Your task to perform on an android device: install app "Google Sheets" Image 0: 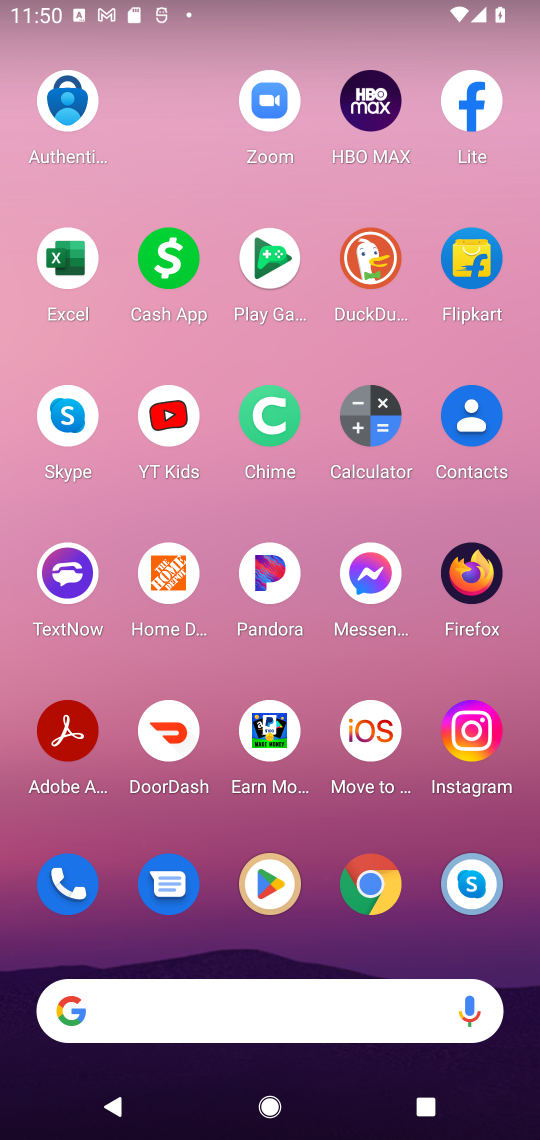
Step 0: press home button
Your task to perform on an android device: install app "Google Sheets" Image 1: 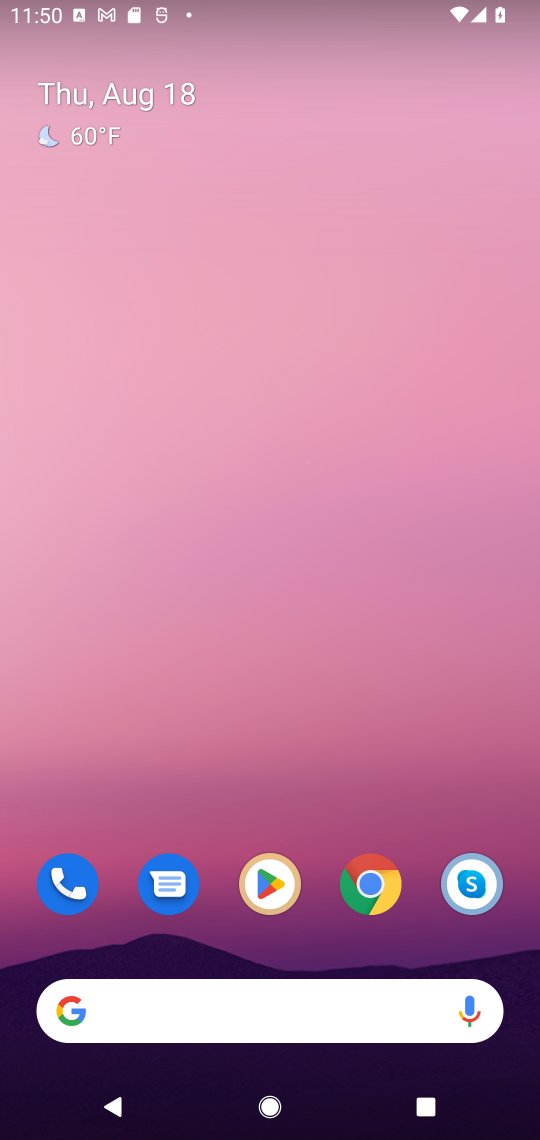
Step 1: drag from (199, 1001) to (157, 4)
Your task to perform on an android device: install app "Google Sheets" Image 2: 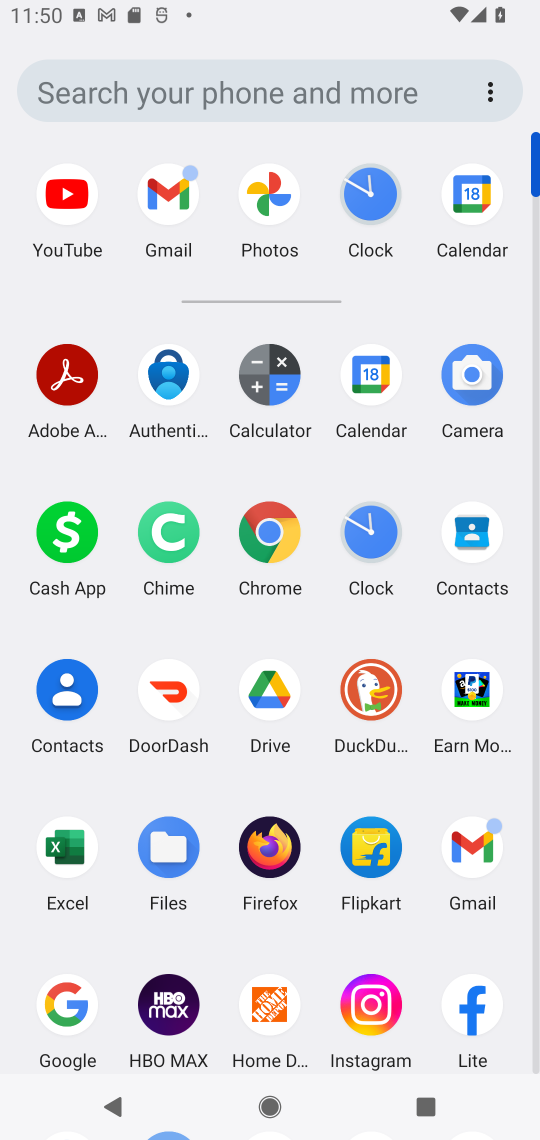
Step 2: drag from (311, 919) to (415, 305)
Your task to perform on an android device: install app "Google Sheets" Image 3: 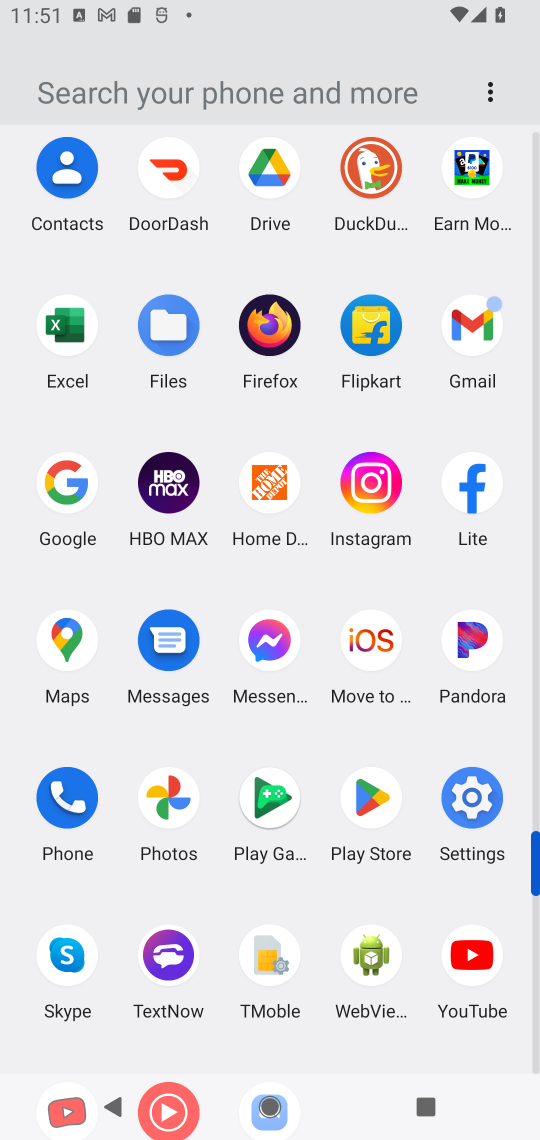
Step 3: click (373, 803)
Your task to perform on an android device: install app "Google Sheets" Image 4: 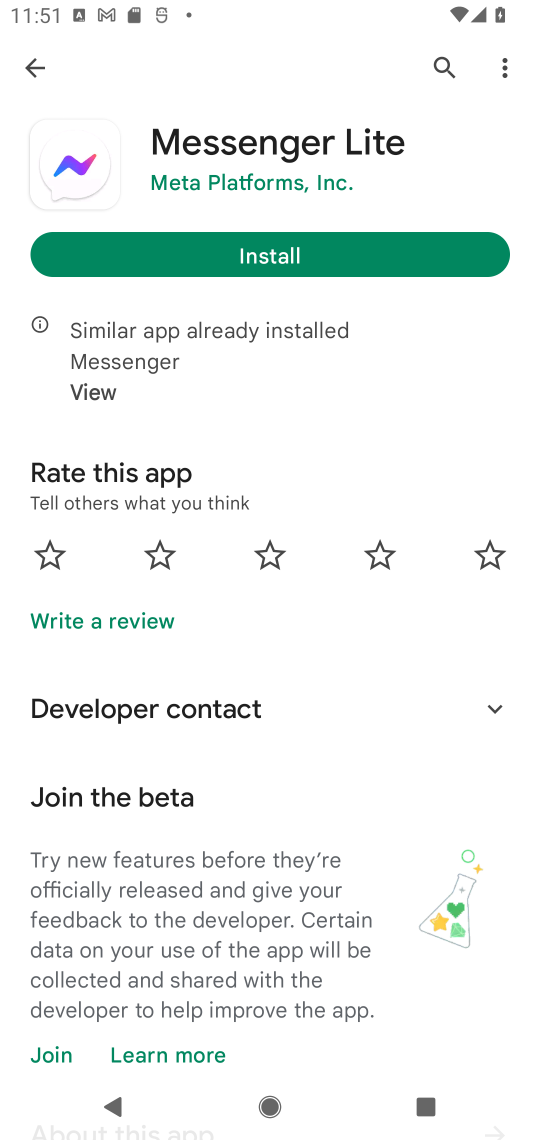
Step 4: press back button
Your task to perform on an android device: install app "Google Sheets" Image 5: 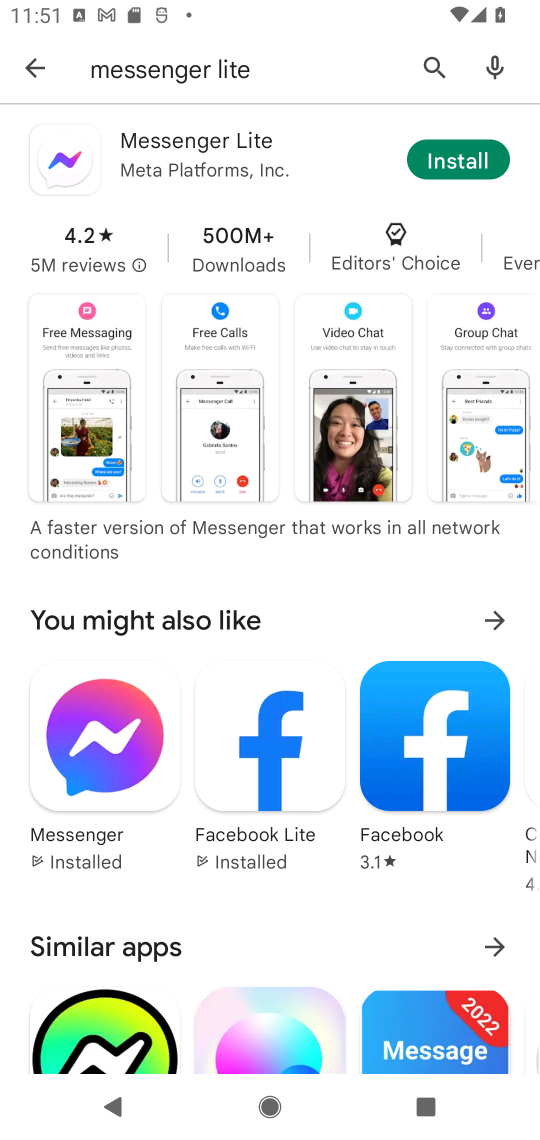
Step 5: press back button
Your task to perform on an android device: install app "Google Sheets" Image 6: 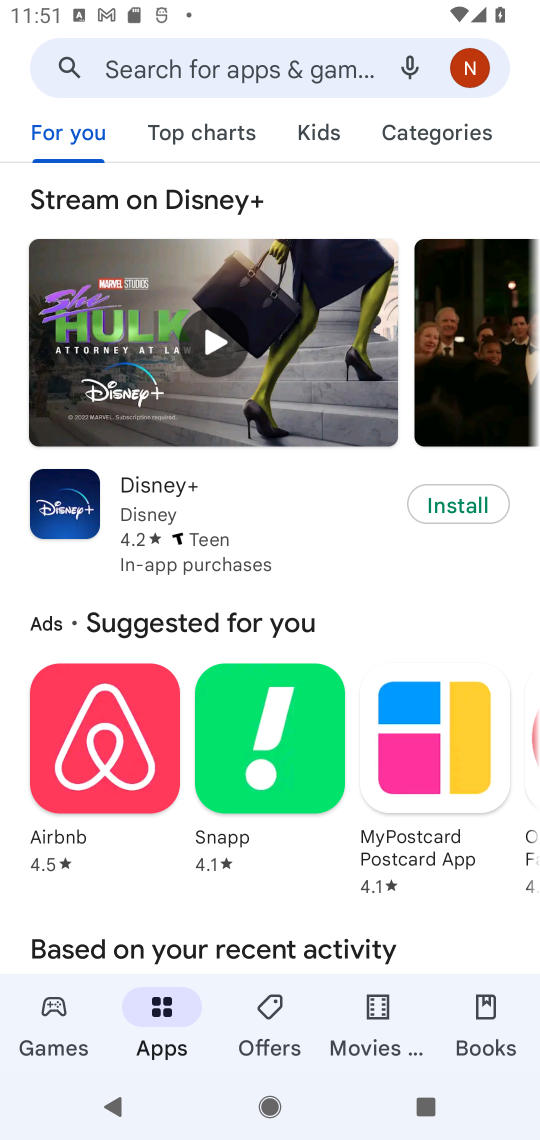
Step 6: click (214, 80)
Your task to perform on an android device: install app "Google Sheets" Image 7: 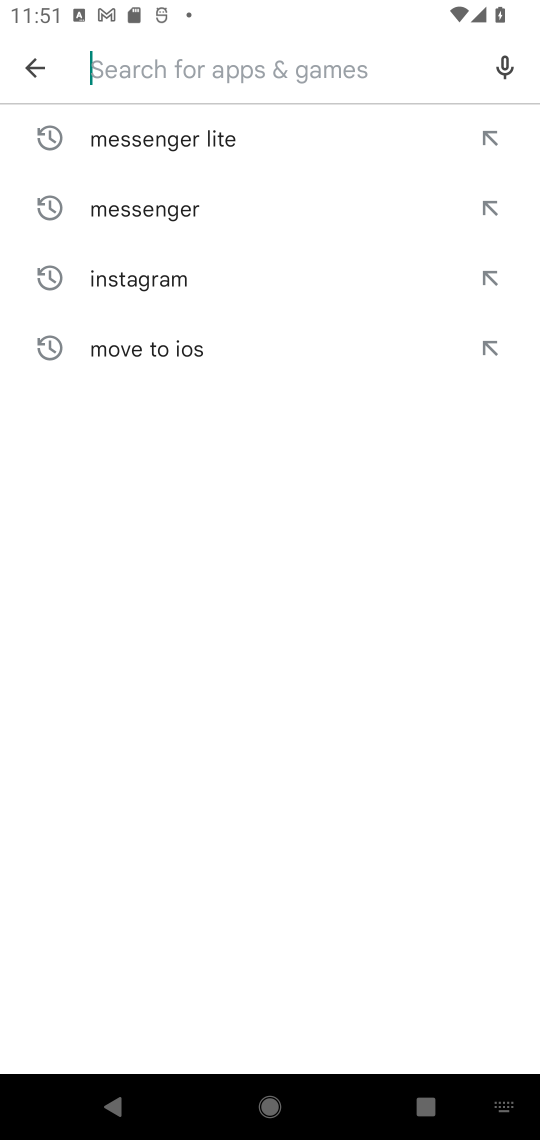
Step 7: type "Google Sheets"
Your task to perform on an android device: install app "Google Sheets" Image 8: 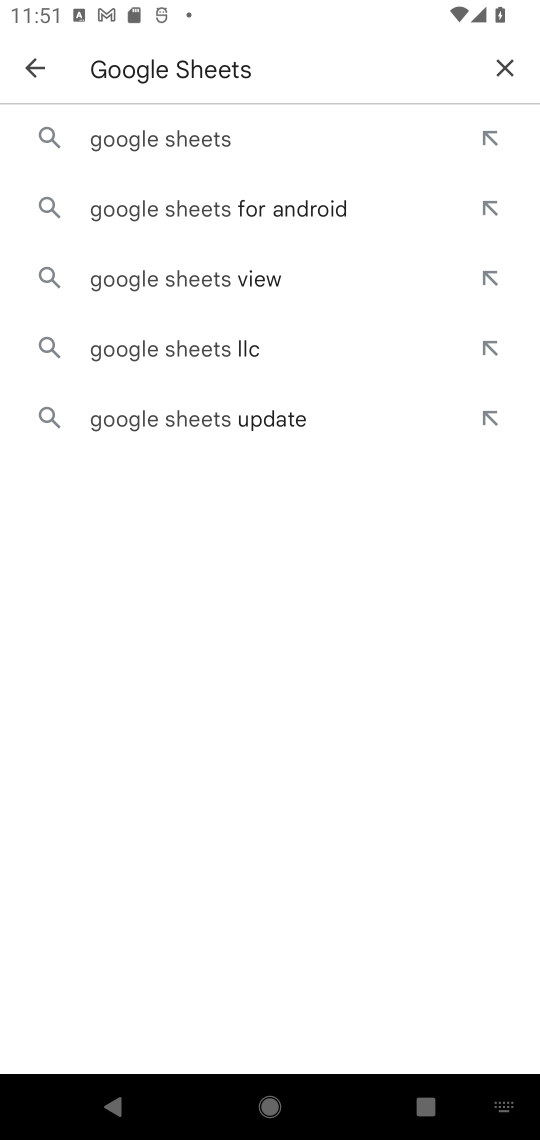
Step 8: click (136, 142)
Your task to perform on an android device: install app "Google Sheets" Image 9: 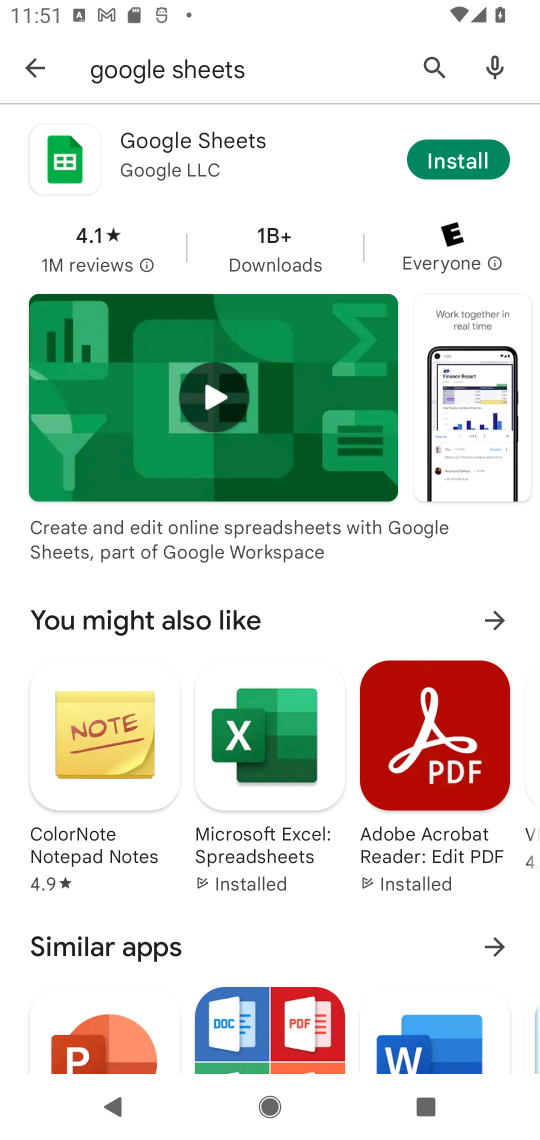
Step 9: click (456, 147)
Your task to perform on an android device: install app "Google Sheets" Image 10: 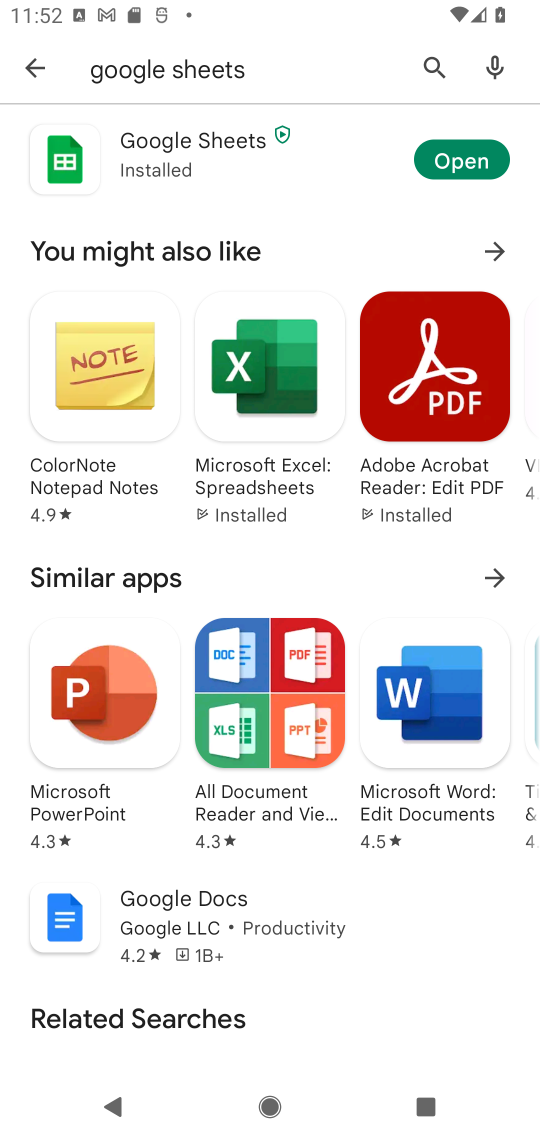
Step 10: task complete